Your task to perform on an android device: turn off wifi Image 0: 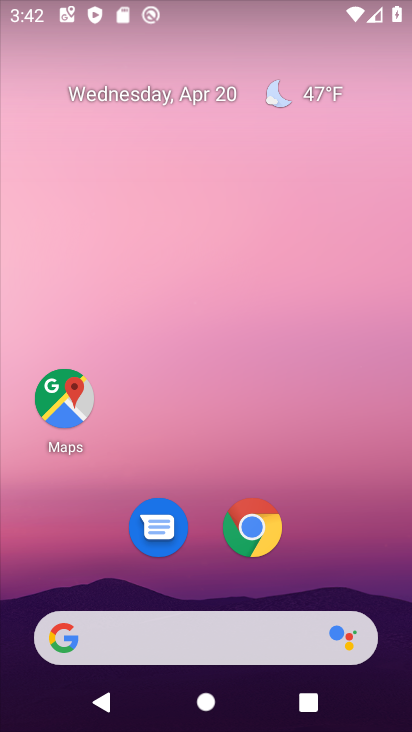
Step 0: drag from (345, 543) to (336, 104)
Your task to perform on an android device: turn off wifi Image 1: 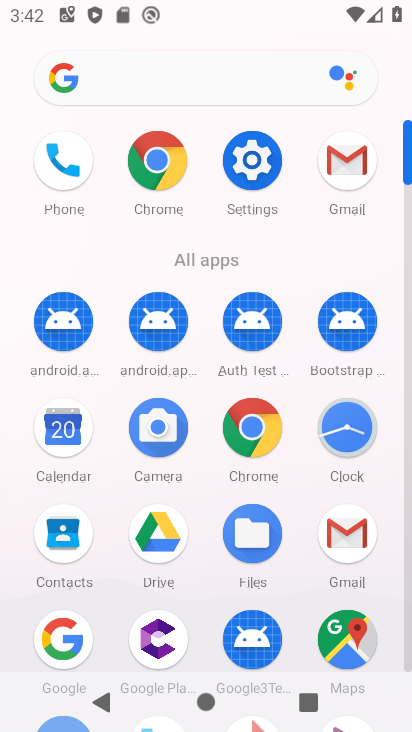
Step 1: click (254, 167)
Your task to perform on an android device: turn off wifi Image 2: 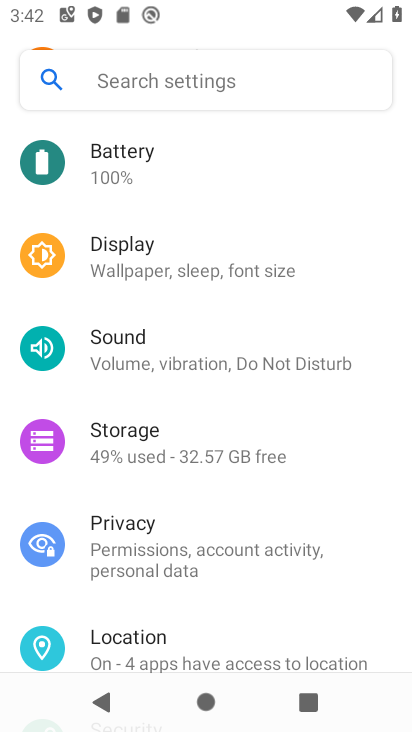
Step 2: drag from (194, 175) to (217, 452)
Your task to perform on an android device: turn off wifi Image 3: 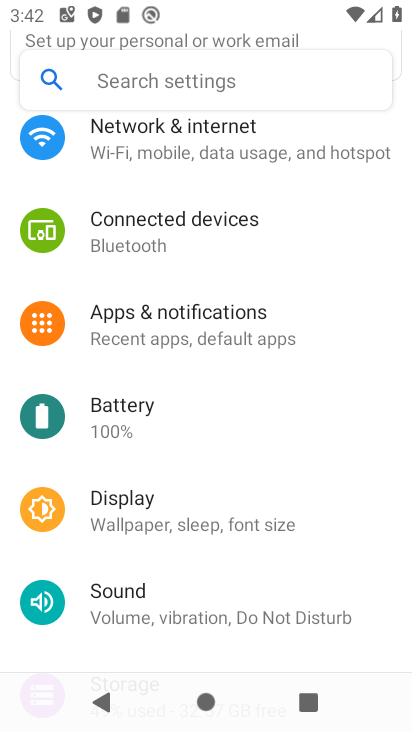
Step 3: click (213, 161)
Your task to perform on an android device: turn off wifi Image 4: 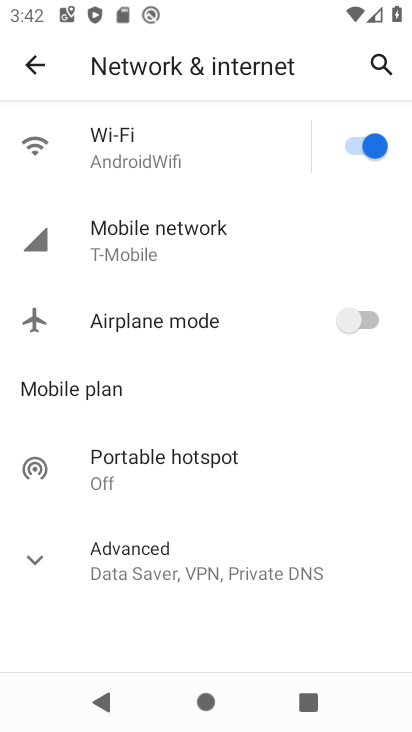
Step 4: click (378, 142)
Your task to perform on an android device: turn off wifi Image 5: 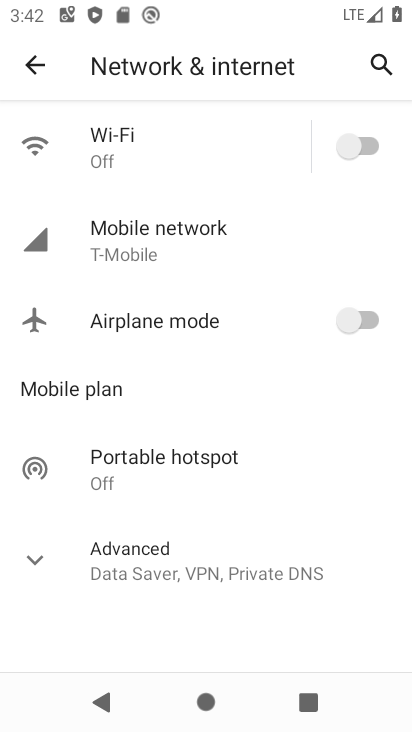
Step 5: task complete